Your task to perform on an android device: turn notification dots off Image 0: 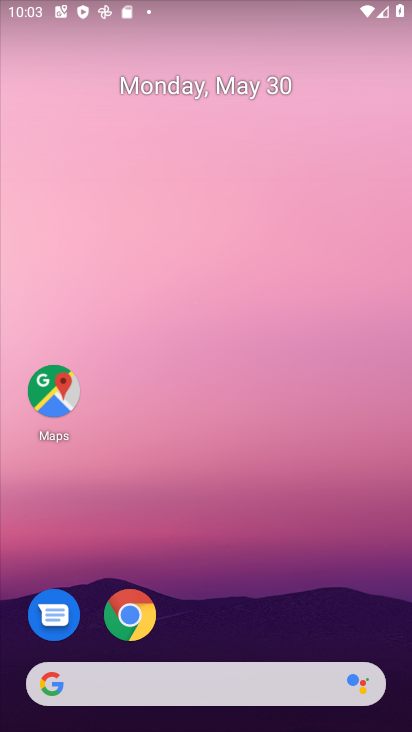
Step 0: drag from (271, 601) to (218, 27)
Your task to perform on an android device: turn notification dots off Image 1: 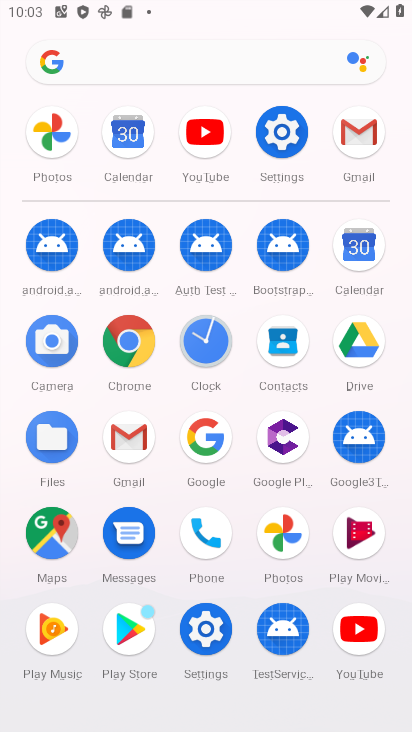
Step 1: click (133, 436)
Your task to perform on an android device: turn notification dots off Image 2: 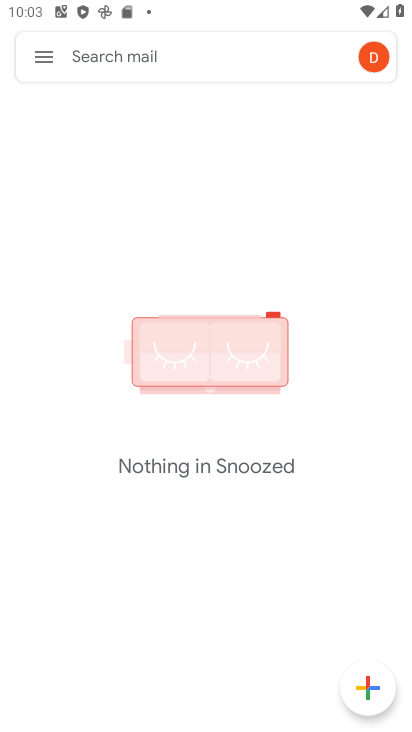
Step 2: click (27, 49)
Your task to perform on an android device: turn notification dots off Image 3: 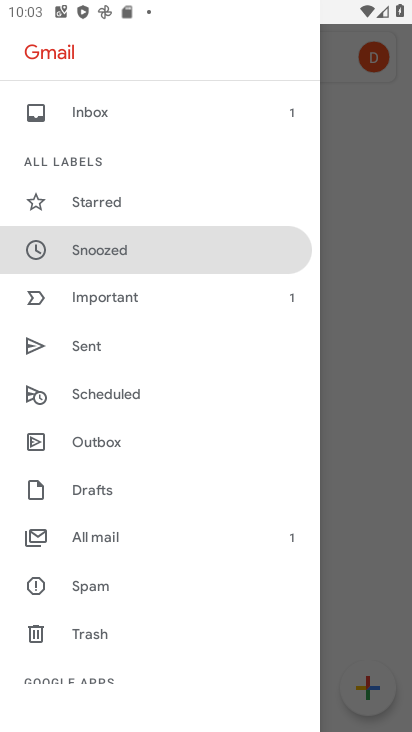
Step 3: drag from (190, 562) to (190, 84)
Your task to perform on an android device: turn notification dots off Image 4: 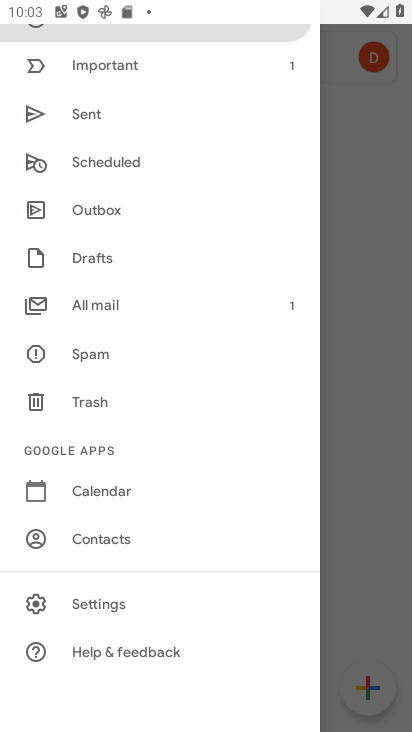
Step 4: drag from (159, 554) to (170, 288)
Your task to perform on an android device: turn notification dots off Image 5: 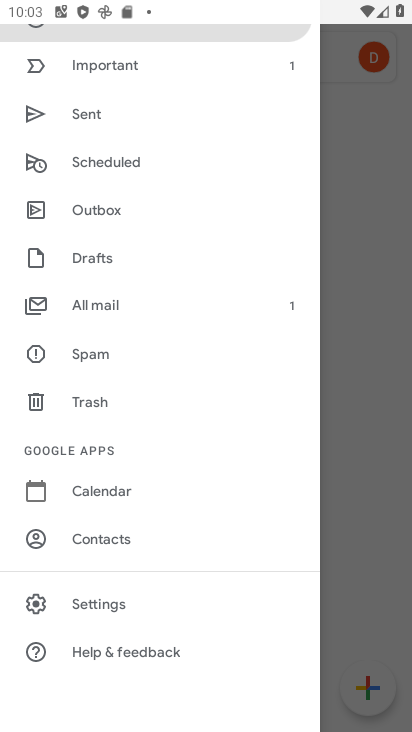
Step 5: click (105, 589)
Your task to perform on an android device: turn notification dots off Image 6: 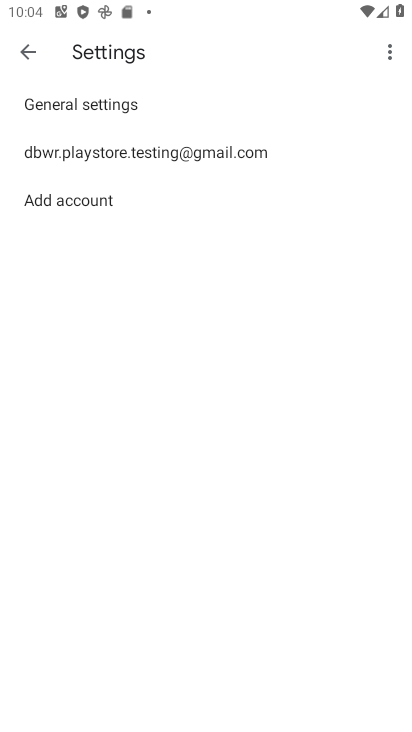
Step 6: click (102, 154)
Your task to perform on an android device: turn notification dots off Image 7: 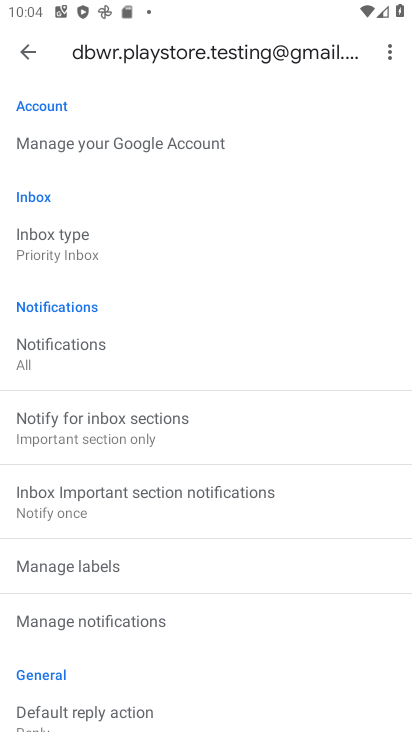
Step 7: click (132, 368)
Your task to perform on an android device: turn notification dots off Image 8: 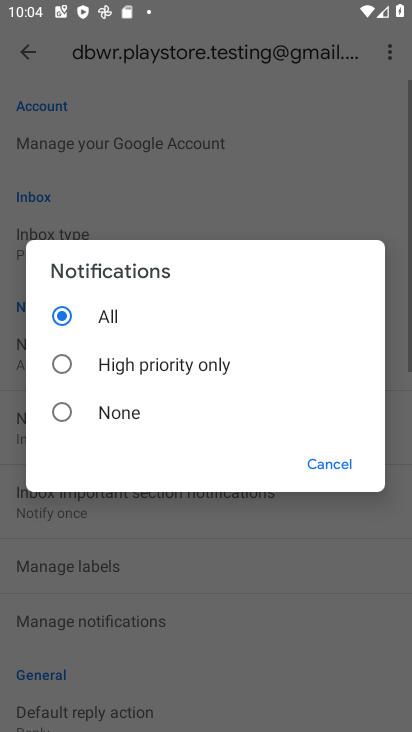
Step 8: click (113, 408)
Your task to perform on an android device: turn notification dots off Image 9: 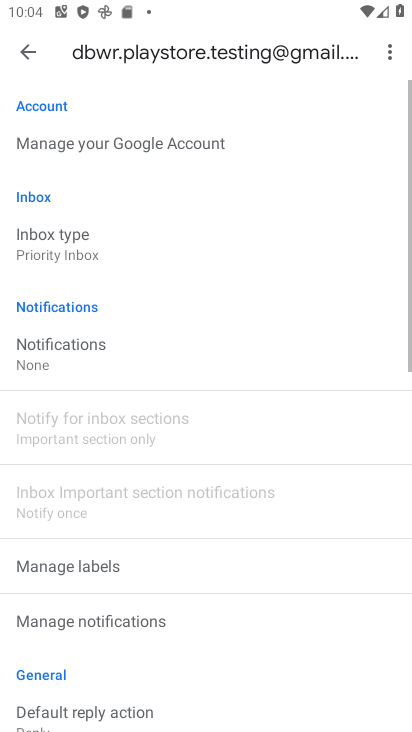
Step 9: task complete